Your task to perform on an android device: turn off sleep mode Image 0: 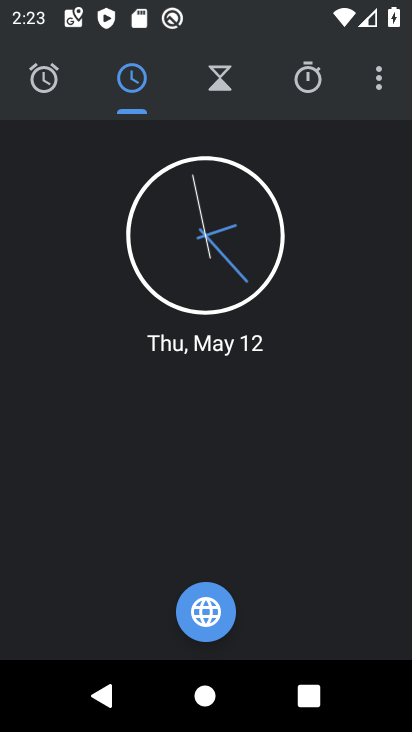
Step 0: press home button
Your task to perform on an android device: turn off sleep mode Image 1: 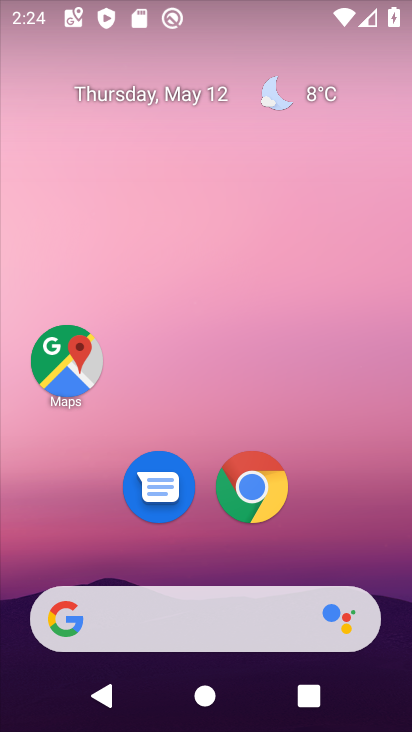
Step 1: drag from (202, 546) to (230, 117)
Your task to perform on an android device: turn off sleep mode Image 2: 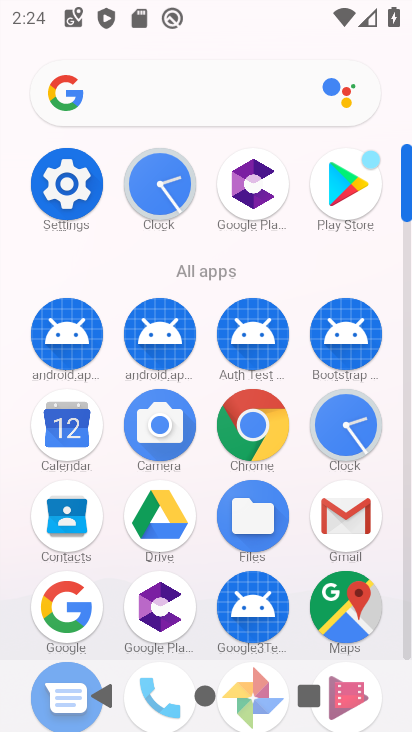
Step 2: drag from (208, 565) to (208, 336)
Your task to perform on an android device: turn off sleep mode Image 3: 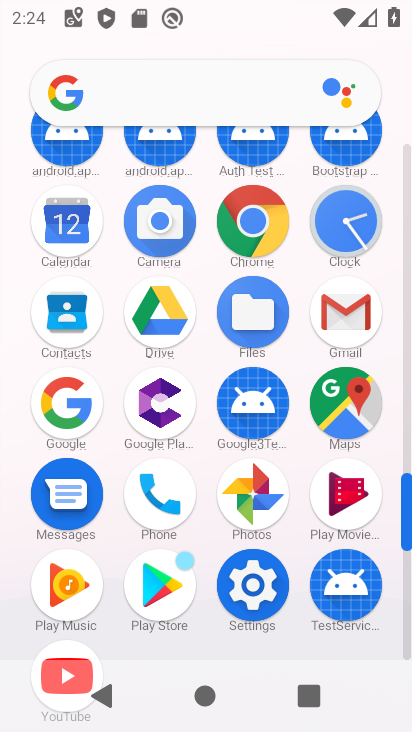
Step 3: click (250, 583)
Your task to perform on an android device: turn off sleep mode Image 4: 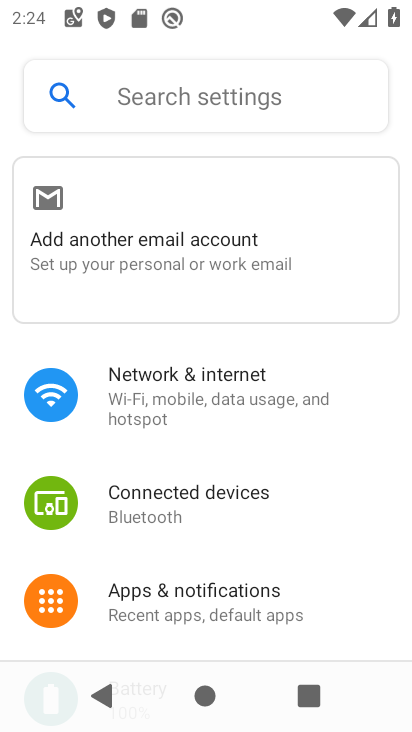
Step 4: drag from (199, 568) to (217, 334)
Your task to perform on an android device: turn off sleep mode Image 5: 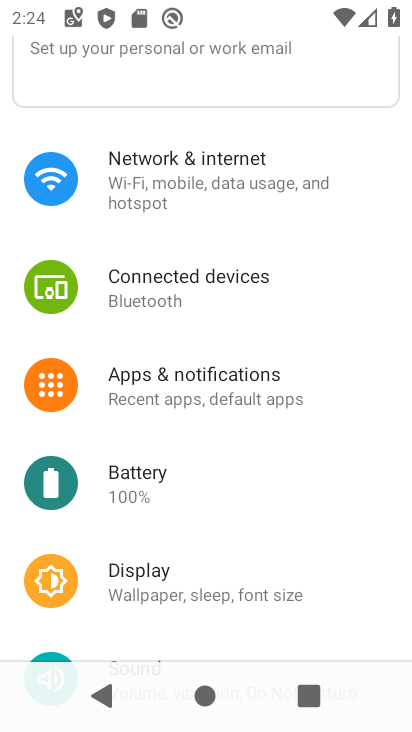
Step 5: drag from (209, 578) to (215, 468)
Your task to perform on an android device: turn off sleep mode Image 6: 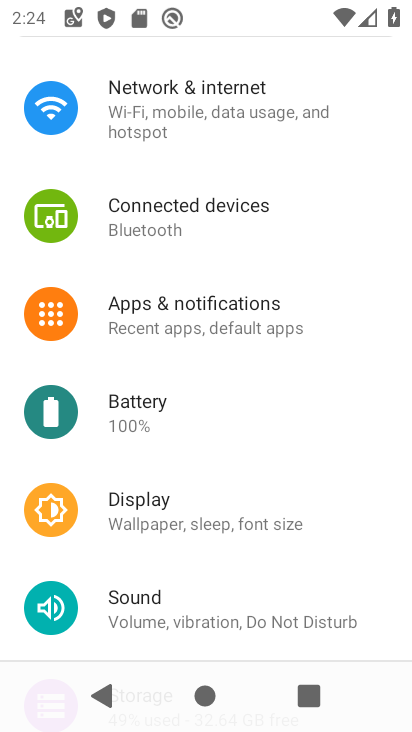
Step 6: click (179, 502)
Your task to perform on an android device: turn off sleep mode Image 7: 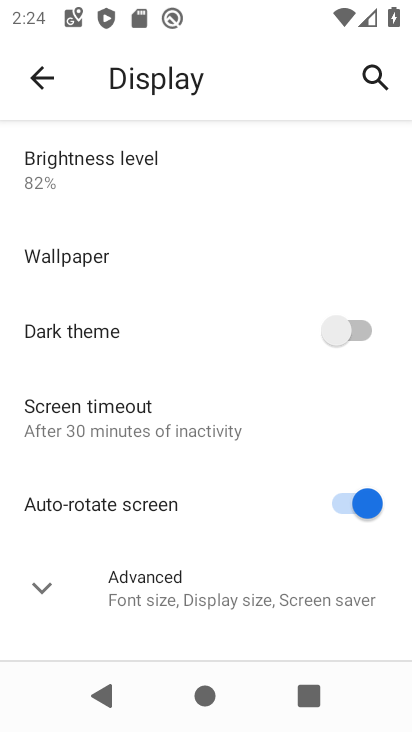
Step 7: click (127, 415)
Your task to perform on an android device: turn off sleep mode Image 8: 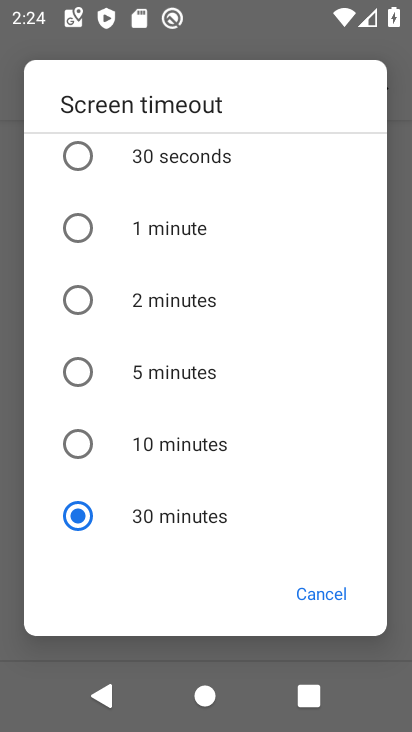
Step 8: click (71, 155)
Your task to perform on an android device: turn off sleep mode Image 9: 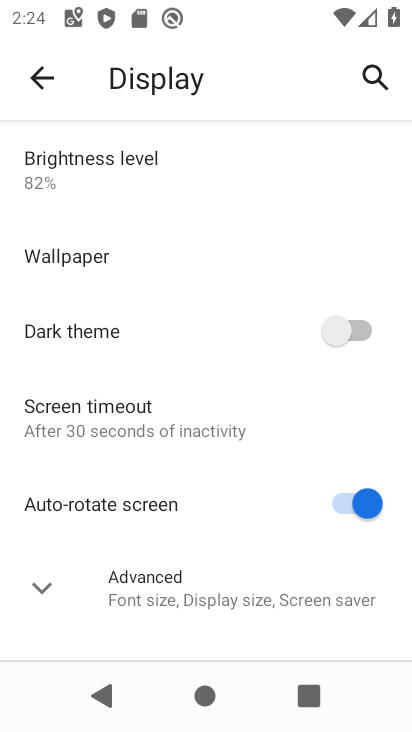
Step 9: task complete